Your task to perform on an android device: open app "Pandora - Music & Podcasts" Image 0: 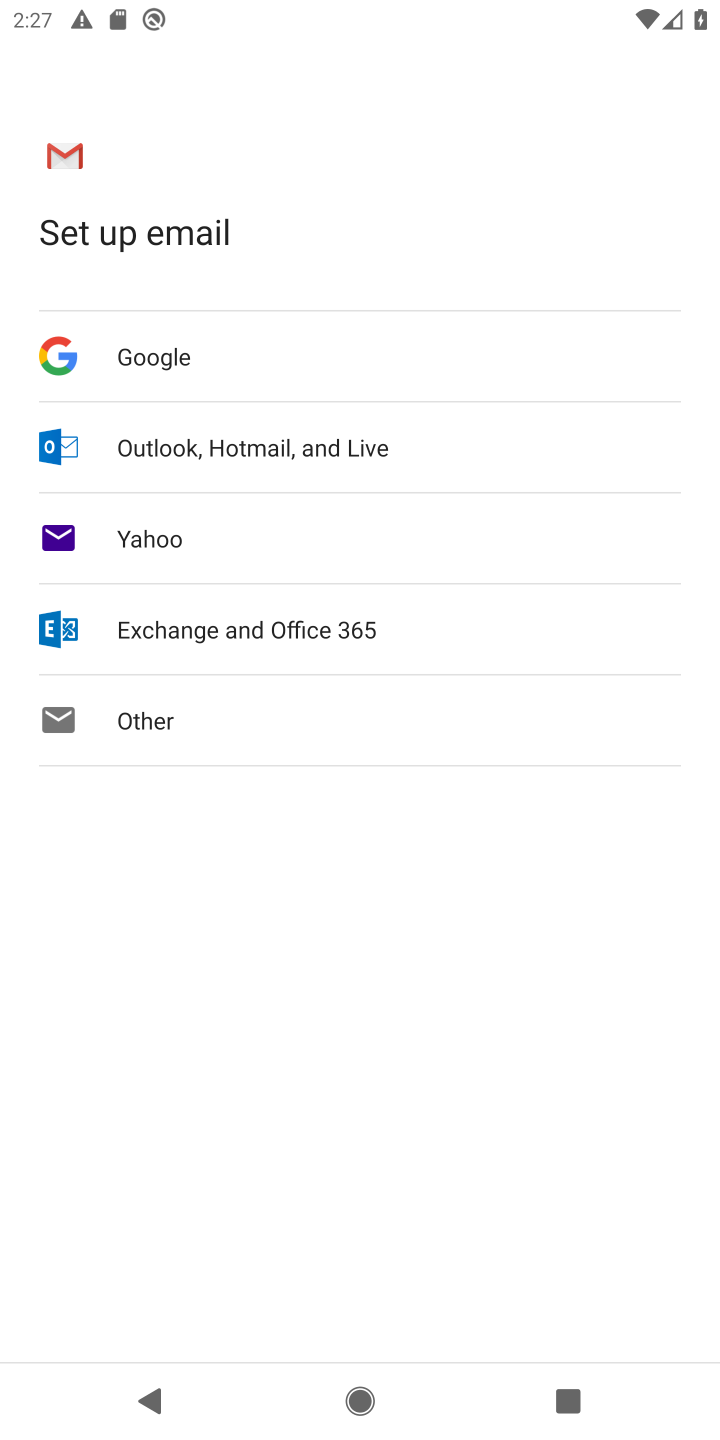
Step 0: press home button
Your task to perform on an android device: open app "Pandora - Music & Podcasts" Image 1: 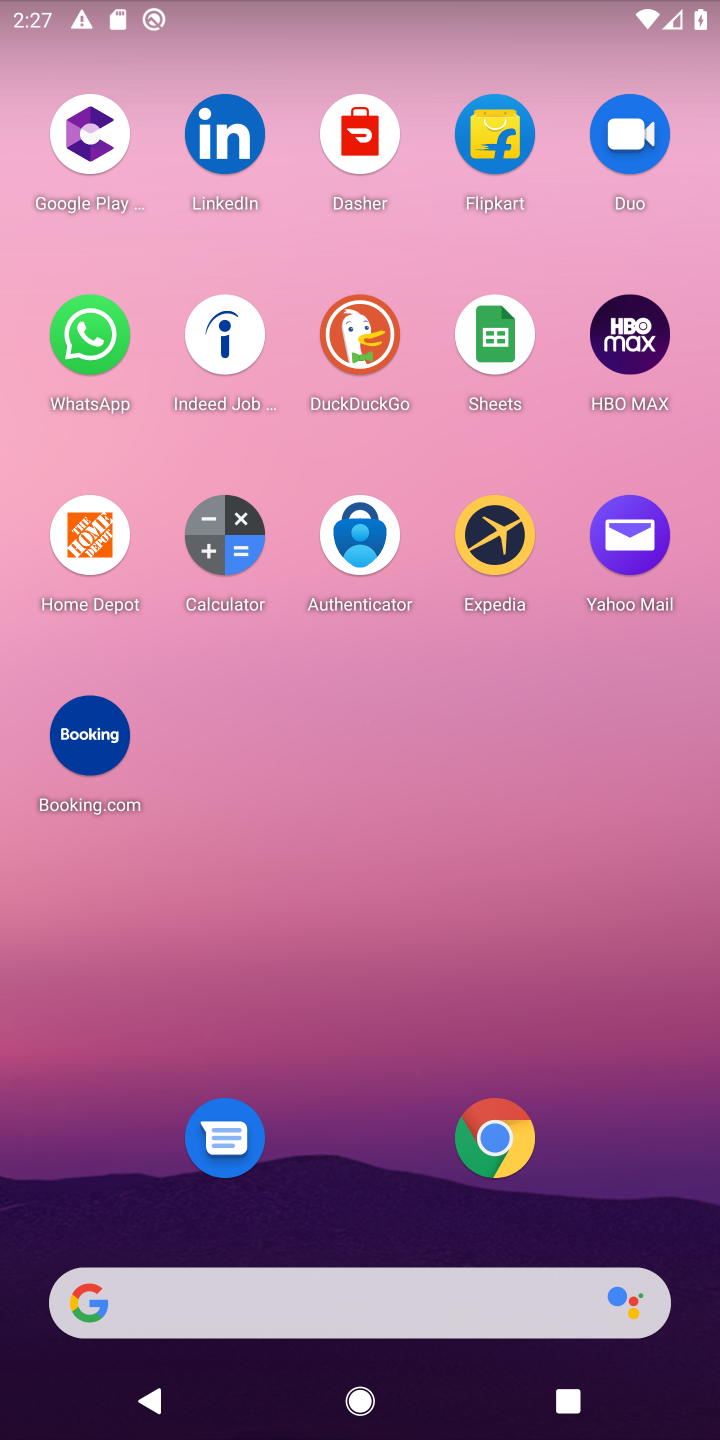
Step 1: drag from (328, 1074) to (328, 60)
Your task to perform on an android device: open app "Pandora - Music & Podcasts" Image 2: 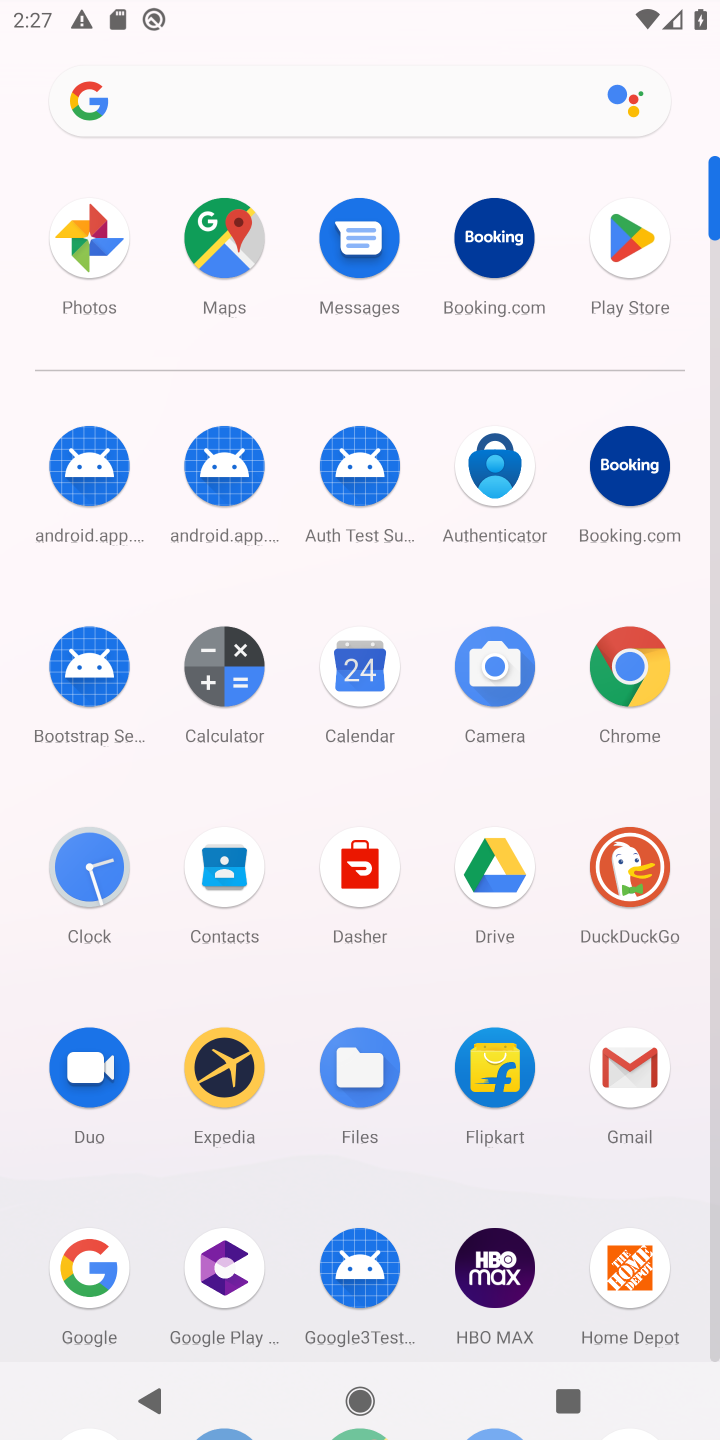
Step 2: click (626, 239)
Your task to perform on an android device: open app "Pandora - Music & Podcasts" Image 3: 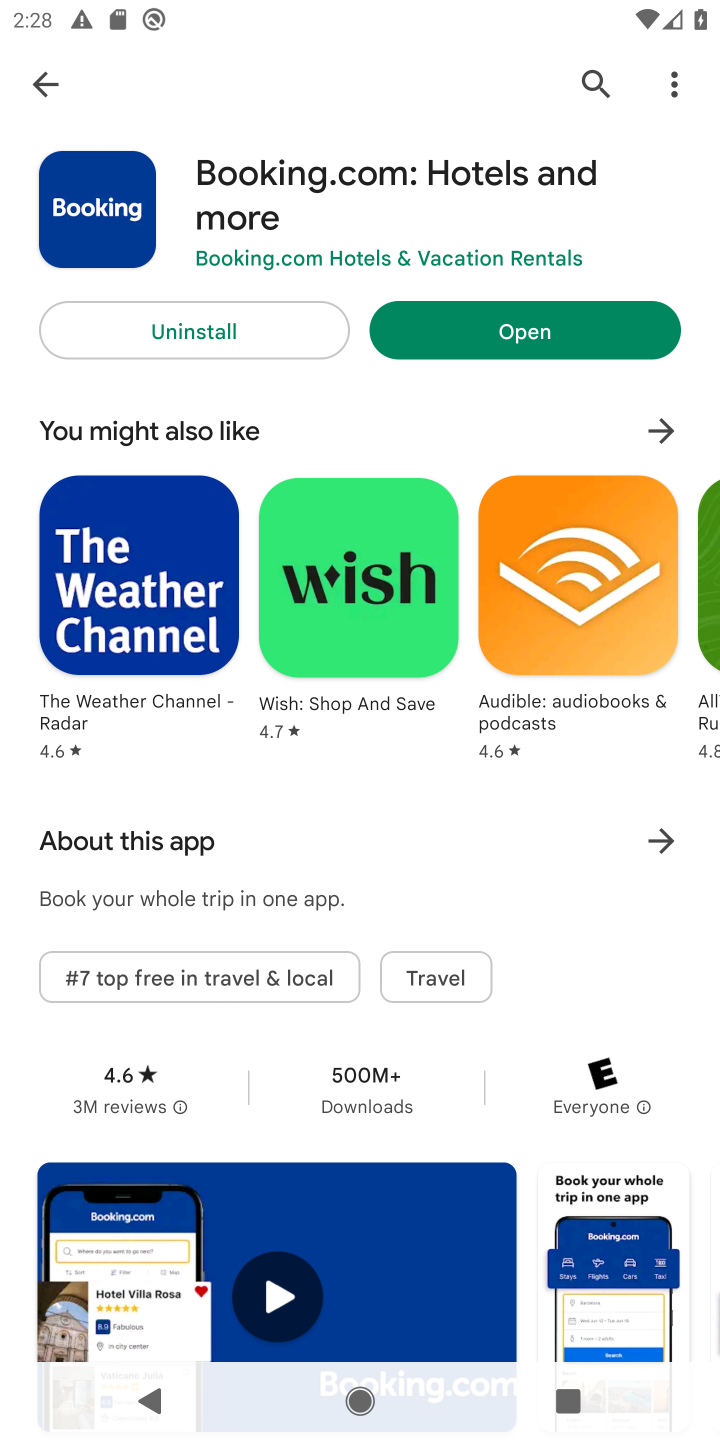
Step 3: click (591, 80)
Your task to perform on an android device: open app "Pandora - Music & Podcasts" Image 4: 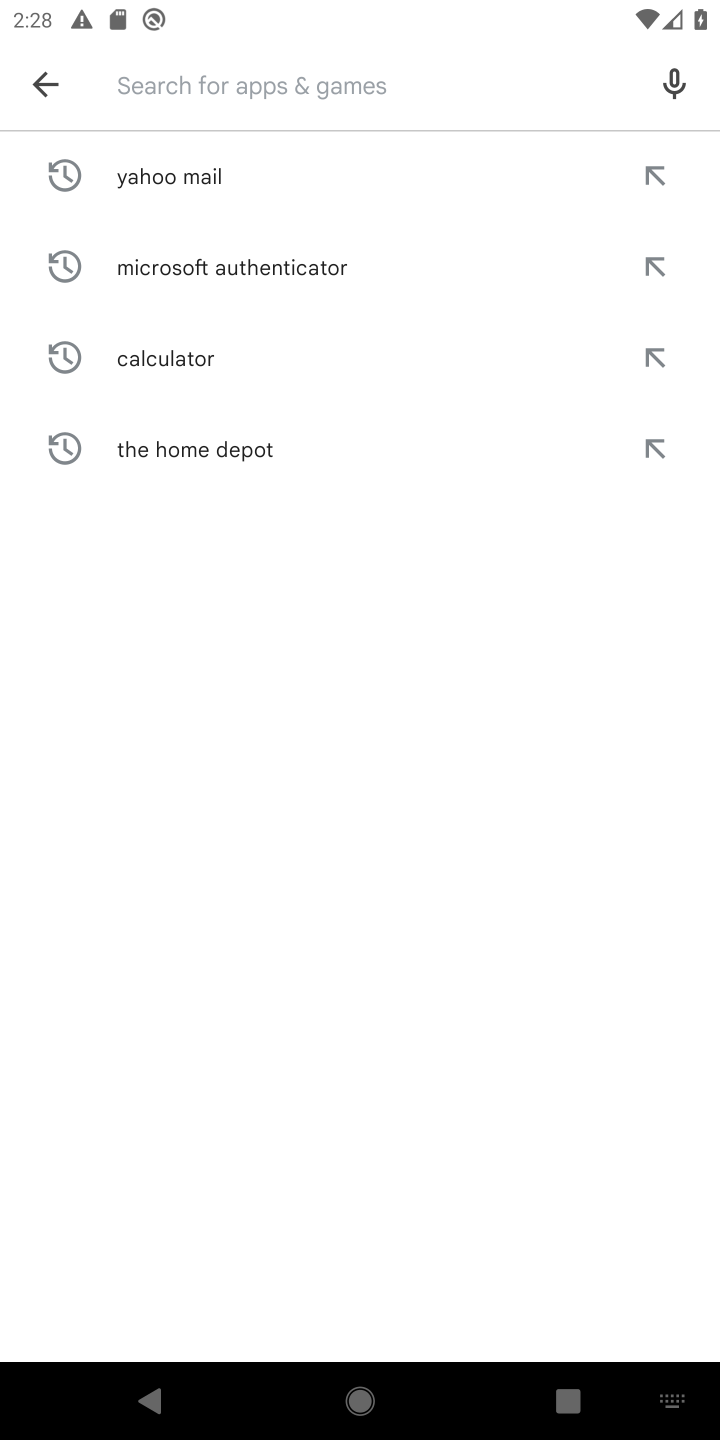
Step 4: type "Pandora - Music & podcaste"
Your task to perform on an android device: open app "Pandora - Music & Podcasts" Image 5: 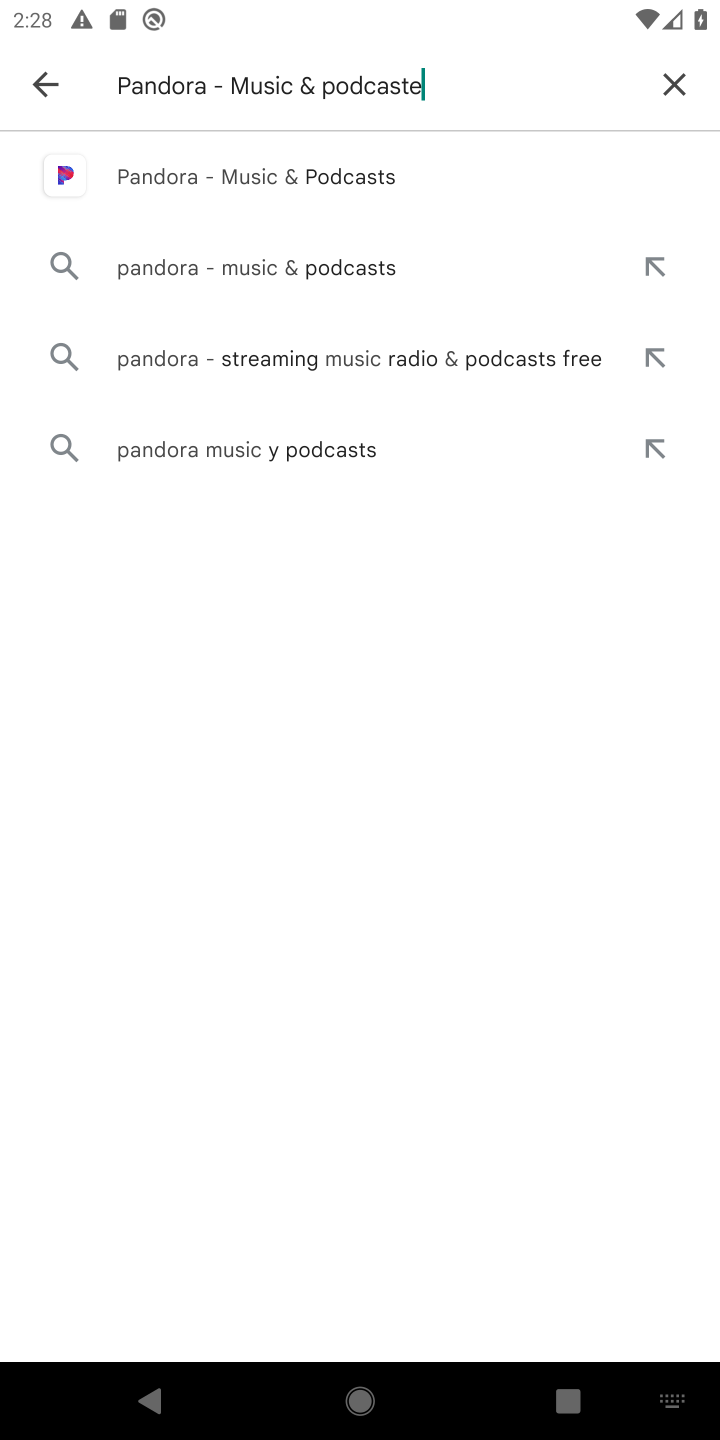
Step 5: click (255, 188)
Your task to perform on an android device: open app "Pandora - Music & Podcasts" Image 6: 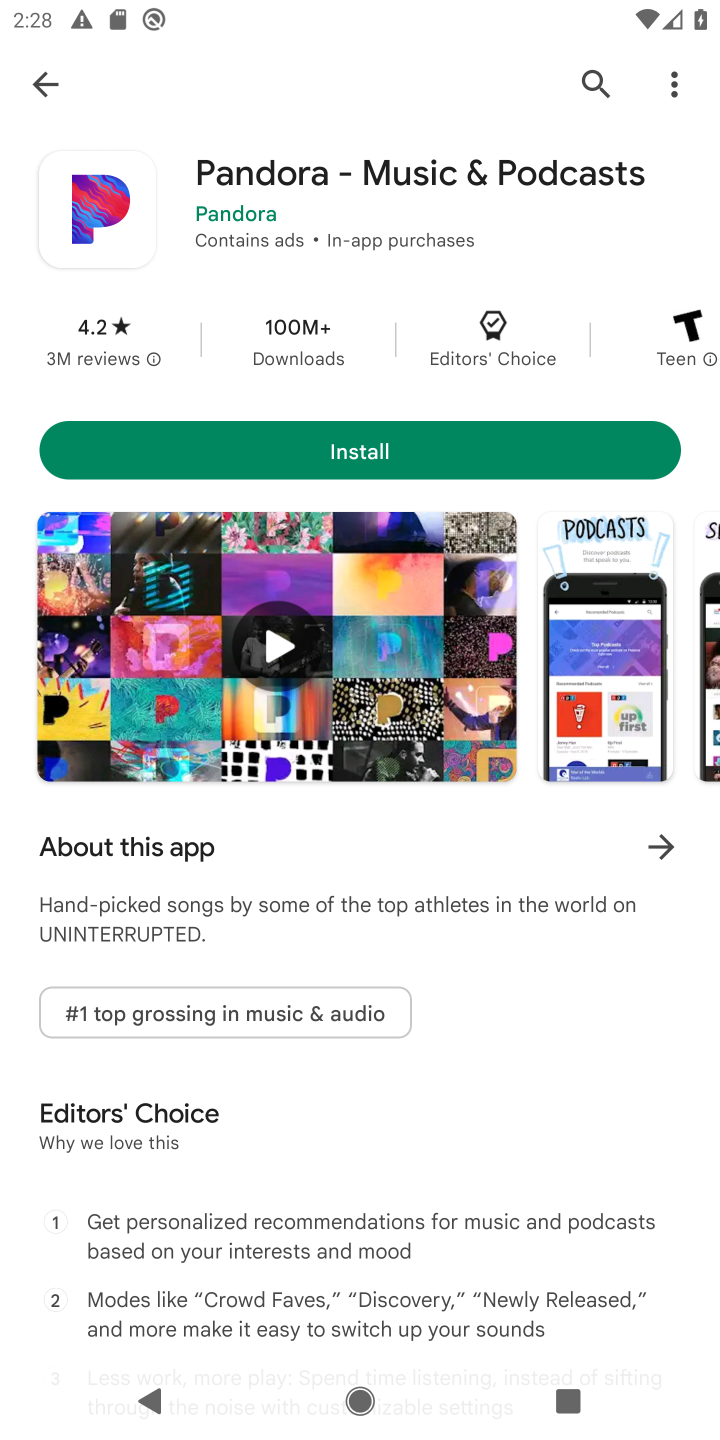
Step 6: task complete